Your task to perform on an android device: check android version Image 0: 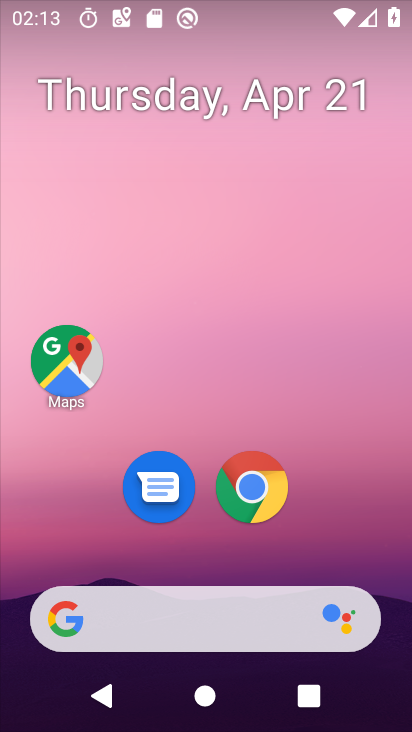
Step 0: drag from (215, 570) to (234, 114)
Your task to perform on an android device: check android version Image 1: 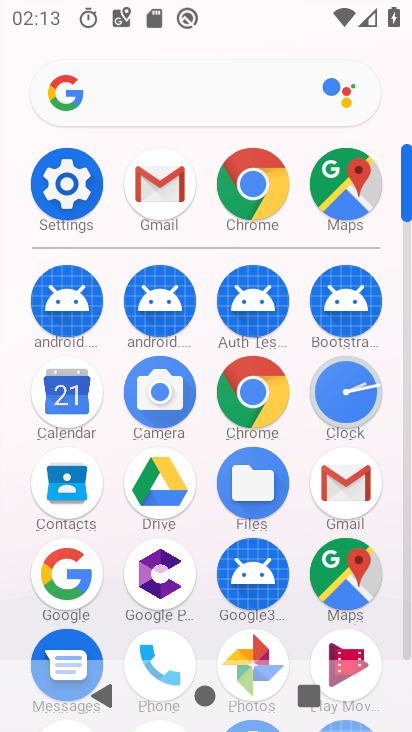
Step 1: click (52, 184)
Your task to perform on an android device: check android version Image 2: 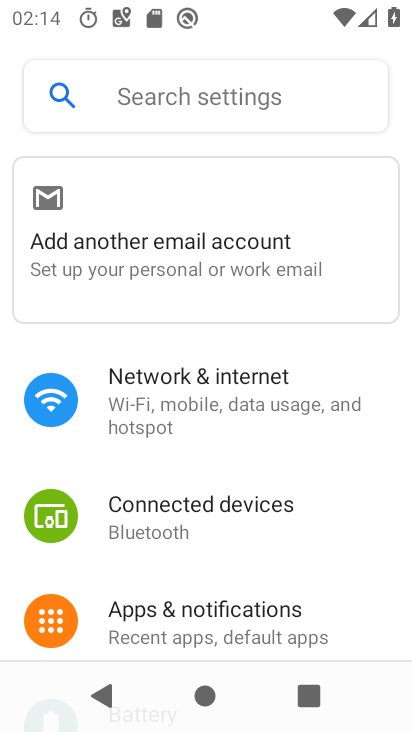
Step 2: drag from (211, 578) to (285, 33)
Your task to perform on an android device: check android version Image 3: 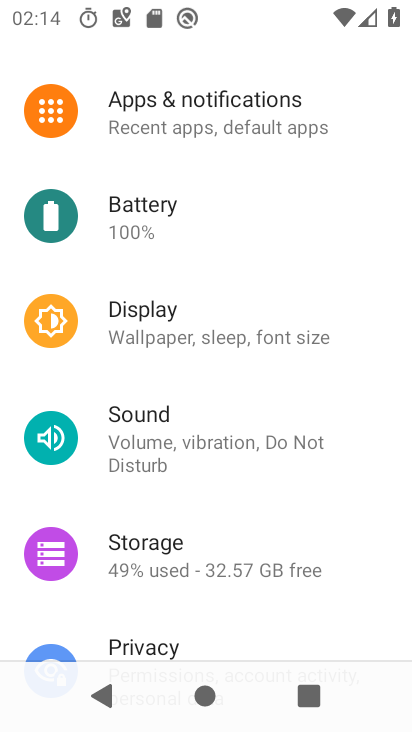
Step 3: drag from (209, 577) to (208, 102)
Your task to perform on an android device: check android version Image 4: 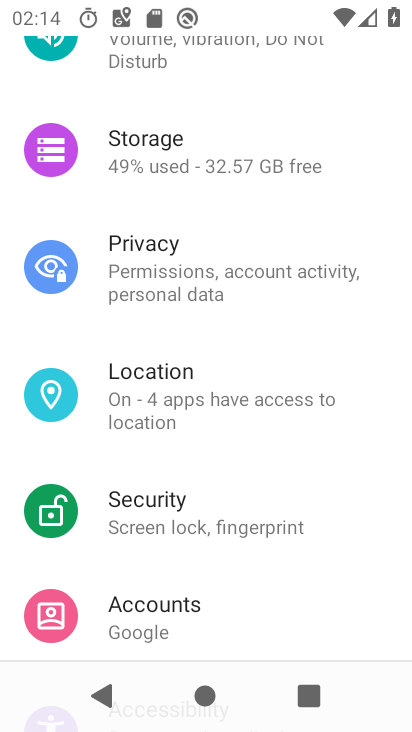
Step 4: drag from (212, 592) to (307, 31)
Your task to perform on an android device: check android version Image 5: 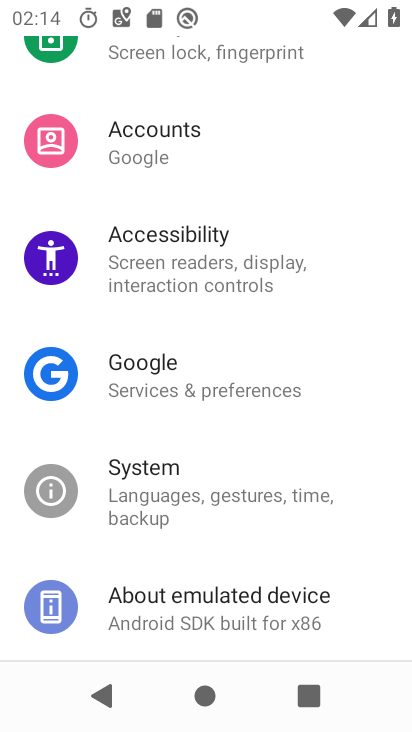
Step 5: click (184, 625)
Your task to perform on an android device: check android version Image 6: 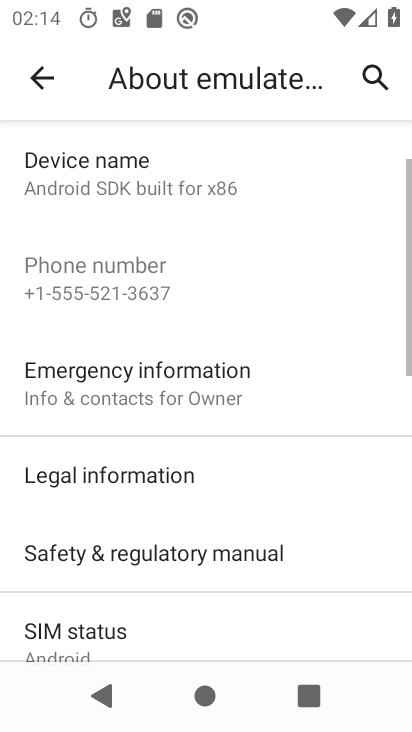
Step 6: drag from (200, 423) to (169, 23)
Your task to perform on an android device: check android version Image 7: 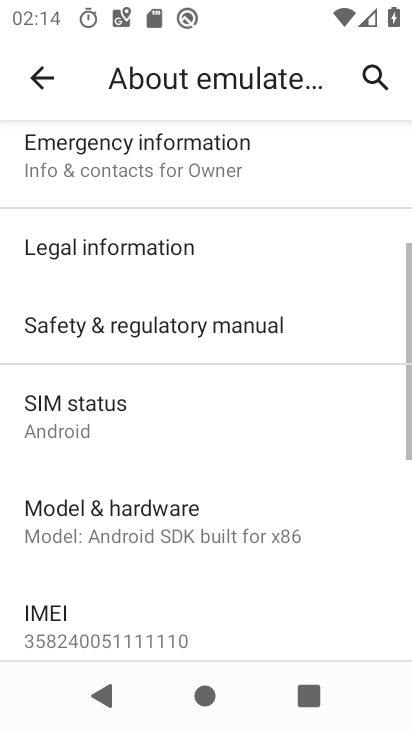
Step 7: drag from (207, 575) to (233, 240)
Your task to perform on an android device: check android version Image 8: 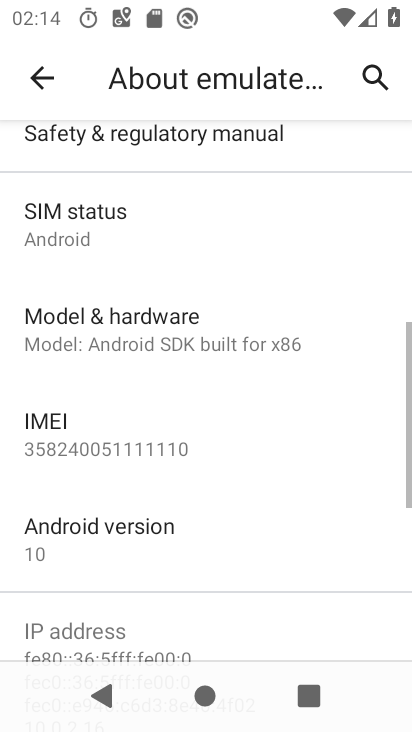
Step 8: click (194, 524)
Your task to perform on an android device: check android version Image 9: 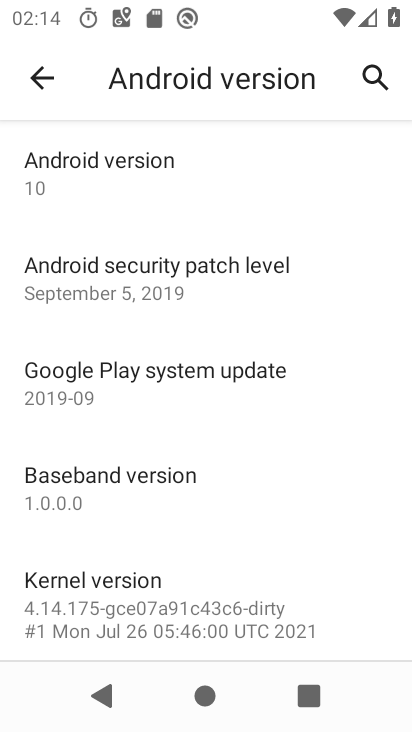
Step 9: task complete